Your task to perform on an android device: turn notification dots off Image 0: 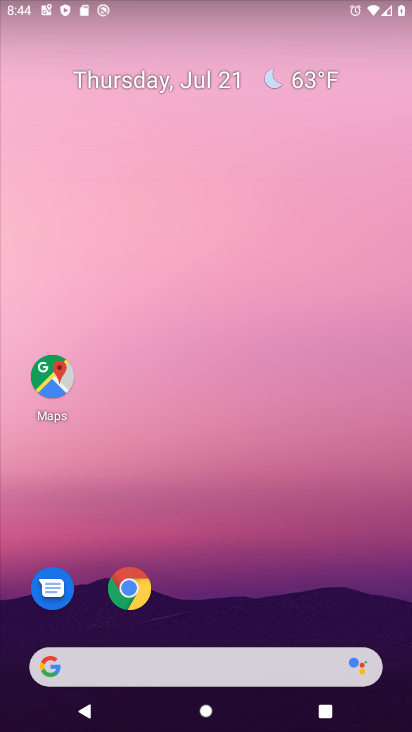
Step 0: click (261, 15)
Your task to perform on an android device: turn notification dots off Image 1: 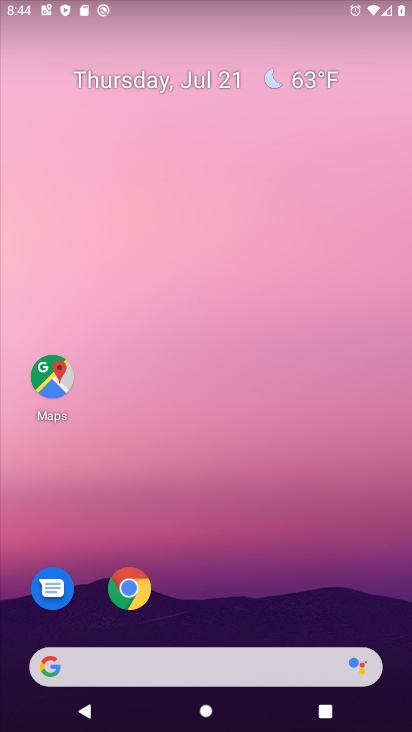
Step 1: drag from (320, 581) to (240, 43)
Your task to perform on an android device: turn notification dots off Image 2: 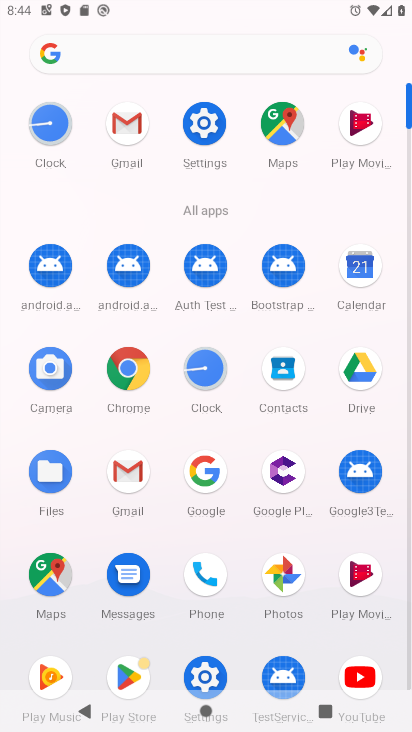
Step 2: click (194, 671)
Your task to perform on an android device: turn notification dots off Image 3: 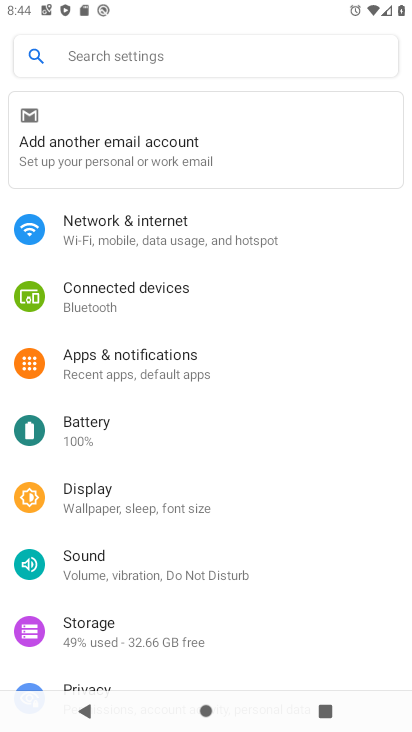
Step 3: click (199, 364)
Your task to perform on an android device: turn notification dots off Image 4: 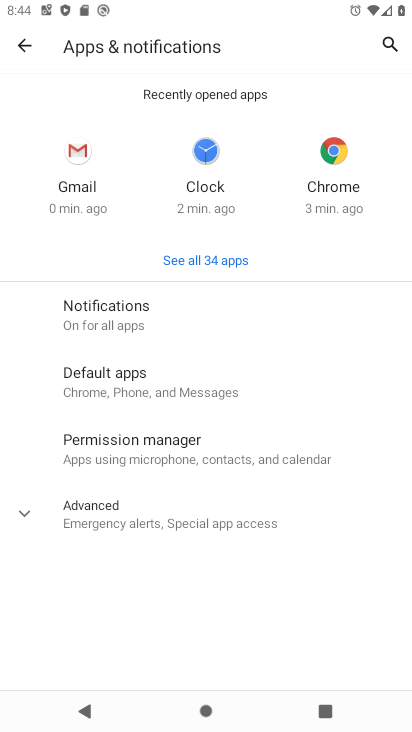
Step 4: click (249, 318)
Your task to perform on an android device: turn notification dots off Image 5: 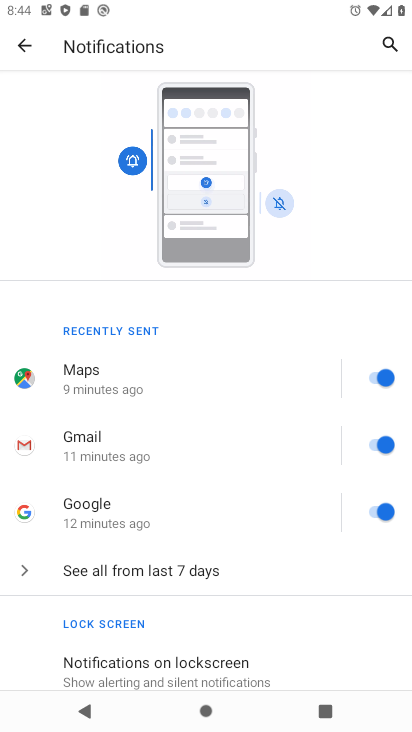
Step 5: drag from (287, 667) to (302, 69)
Your task to perform on an android device: turn notification dots off Image 6: 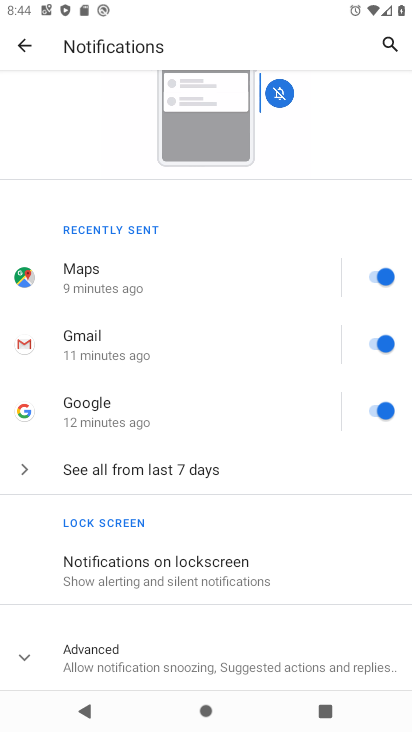
Step 6: click (347, 649)
Your task to perform on an android device: turn notification dots off Image 7: 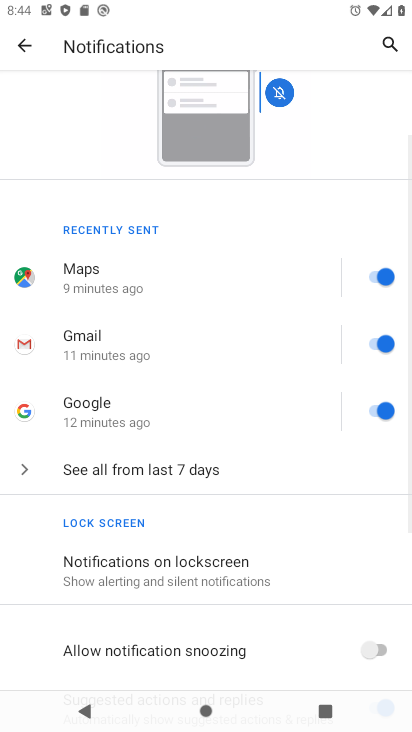
Step 7: drag from (347, 649) to (308, 350)
Your task to perform on an android device: turn notification dots off Image 8: 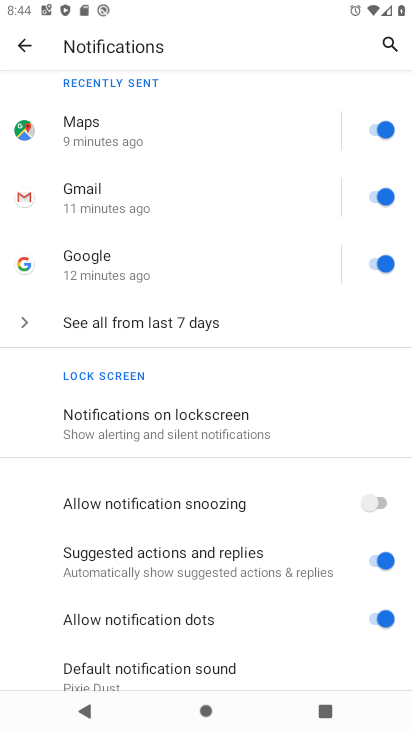
Step 8: click (386, 619)
Your task to perform on an android device: turn notification dots off Image 9: 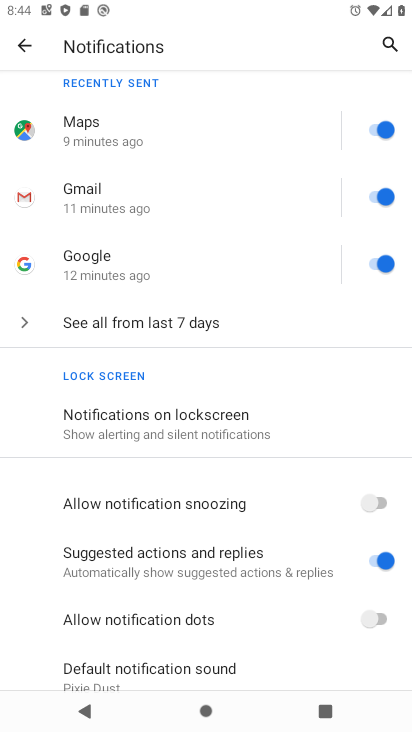
Step 9: task complete